Your task to perform on an android device: remove spam from my inbox in the gmail app Image 0: 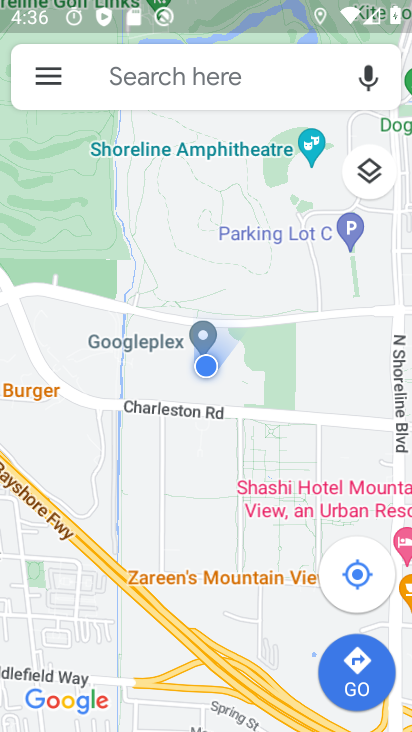
Step 0: press back button
Your task to perform on an android device: remove spam from my inbox in the gmail app Image 1: 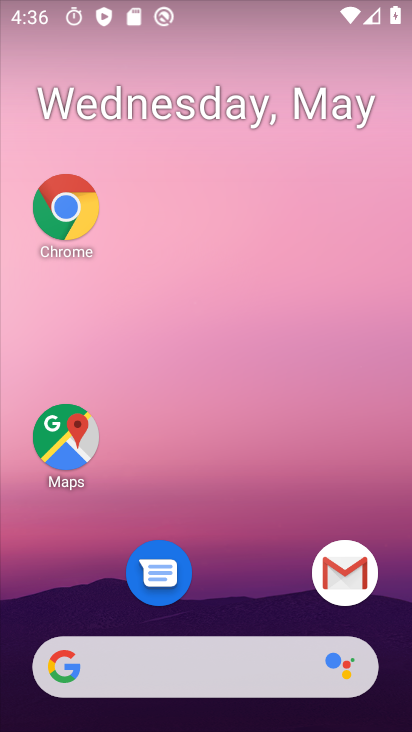
Step 1: drag from (252, 672) to (134, 268)
Your task to perform on an android device: remove spam from my inbox in the gmail app Image 2: 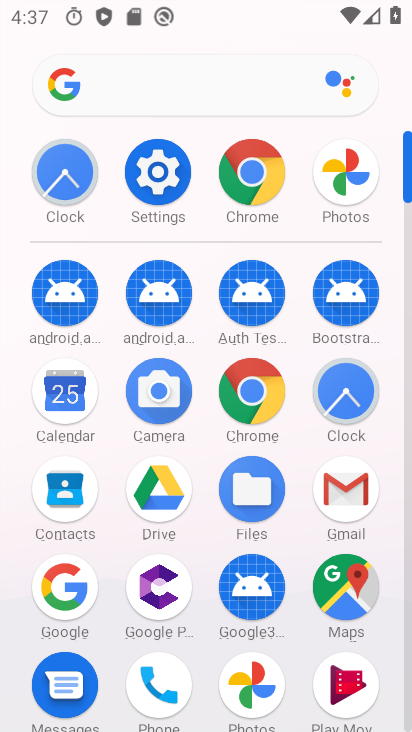
Step 2: click (343, 482)
Your task to perform on an android device: remove spam from my inbox in the gmail app Image 3: 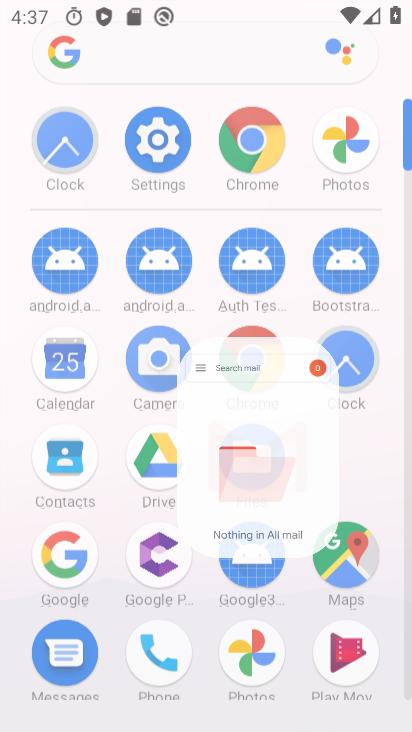
Step 3: click (346, 482)
Your task to perform on an android device: remove spam from my inbox in the gmail app Image 4: 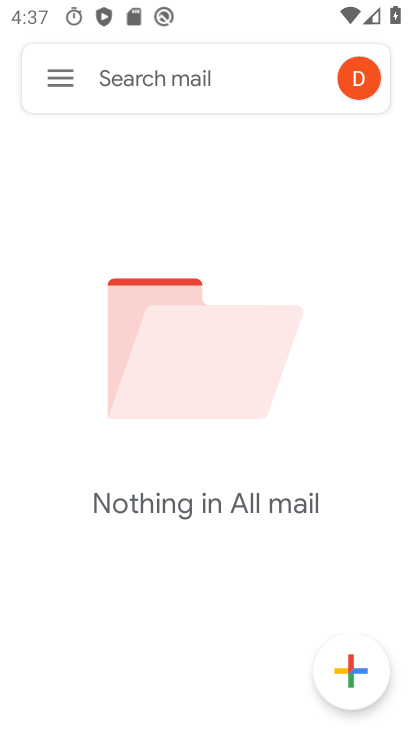
Step 4: click (54, 87)
Your task to perform on an android device: remove spam from my inbox in the gmail app Image 5: 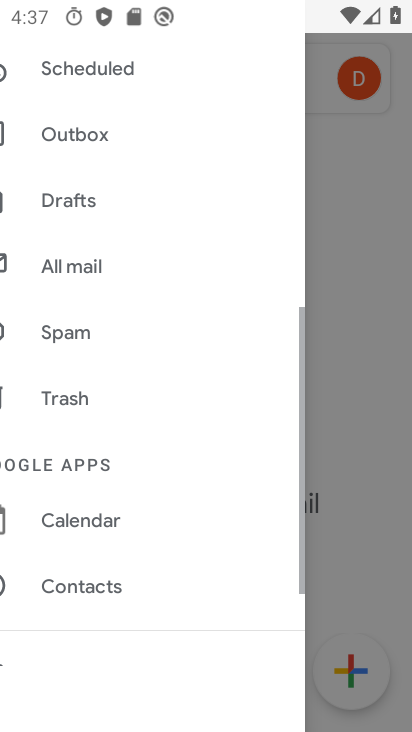
Step 5: click (55, 86)
Your task to perform on an android device: remove spam from my inbox in the gmail app Image 6: 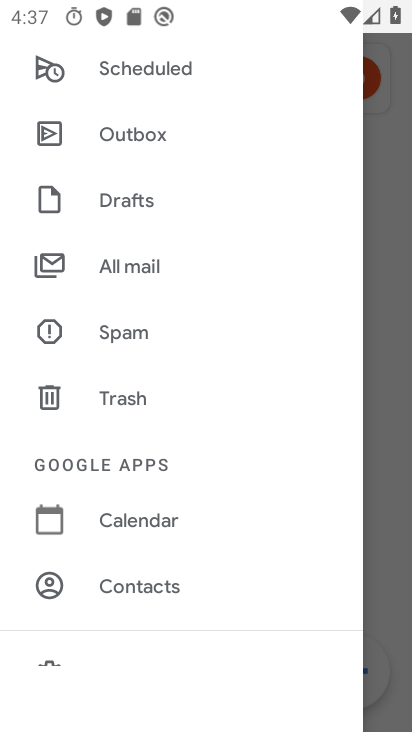
Step 6: click (114, 343)
Your task to perform on an android device: remove spam from my inbox in the gmail app Image 7: 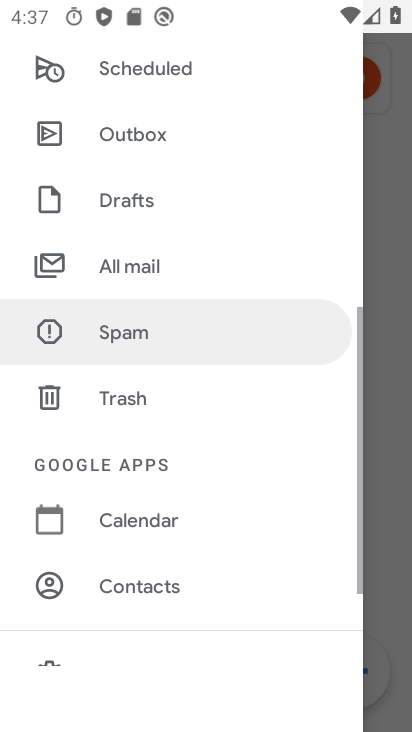
Step 7: click (114, 313)
Your task to perform on an android device: remove spam from my inbox in the gmail app Image 8: 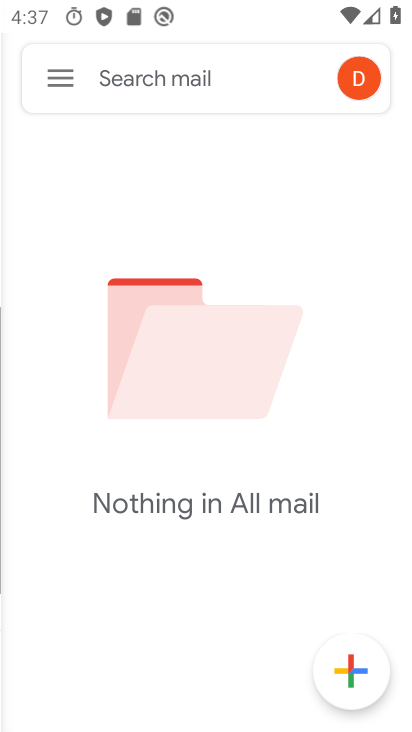
Step 8: click (117, 323)
Your task to perform on an android device: remove spam from my inbox in the gmail app Image 9: 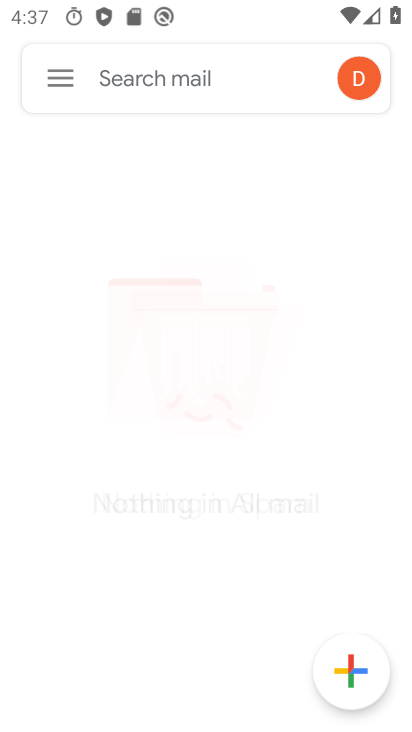
Step 9: click (117, 323)
Your task to perform on an android device: remove spam from my inbox in the gmail app Image 10: 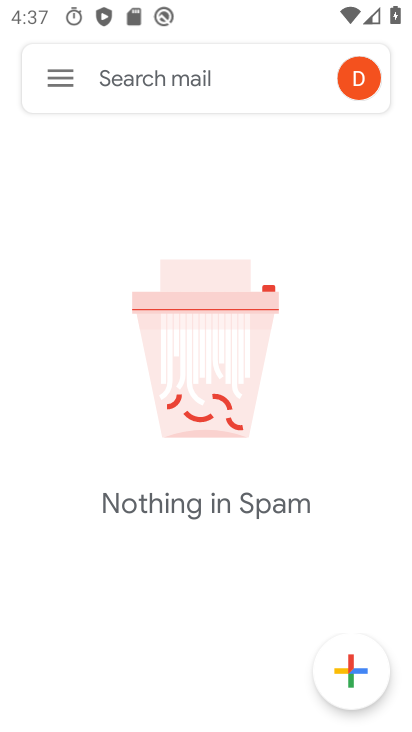
Step 10: task complete